Your task to perform on an android device: Open the calendar and show me this week's events Image 0: 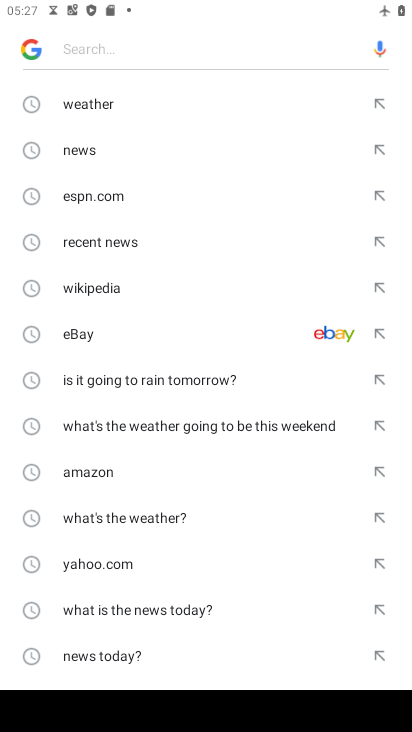
Step 0: press home button
Your task to perform on an android device: Open the calendar and show me this week's events Image 1: 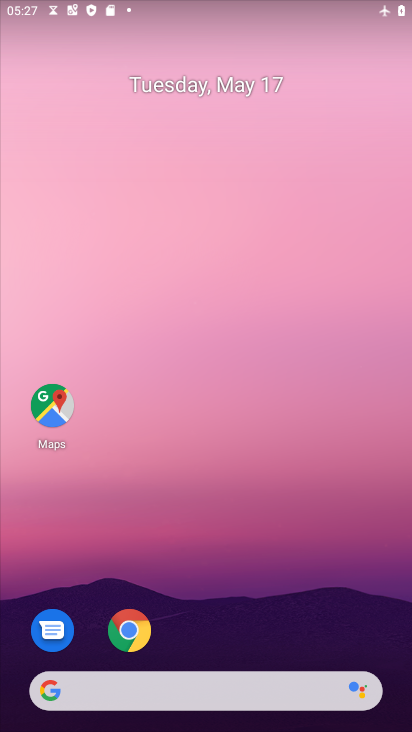
Step 1: drag from (271, 597) to (276, 34)
Your task to perform on an android device: Open the calendar and show me this week's events Image 2: 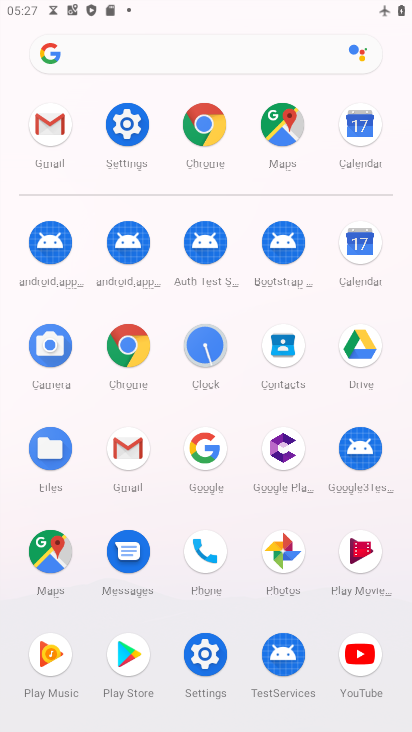
Step 2: click (364, 231)
Your task to perform on an android device: Open the calendar and show me this week's events Image 3: 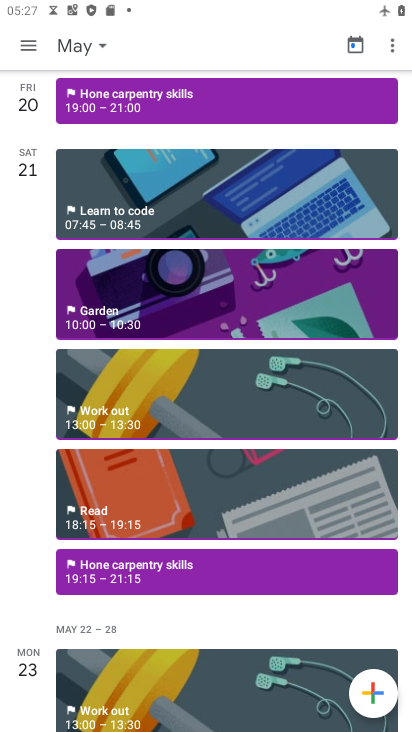
Step 3: click (114, 43)
Your task to perform on an android device: Open the calendar and show me this week's events Image 4: 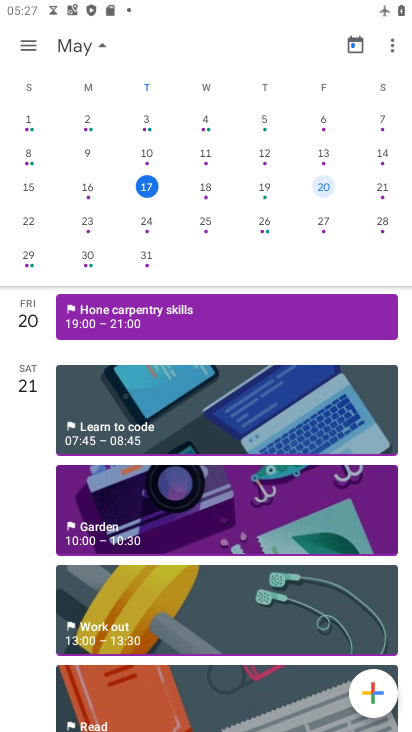
Step 4: click (326, 176)
Your task to perform on an android device: Open the calendar and show me this week's events Image 5: 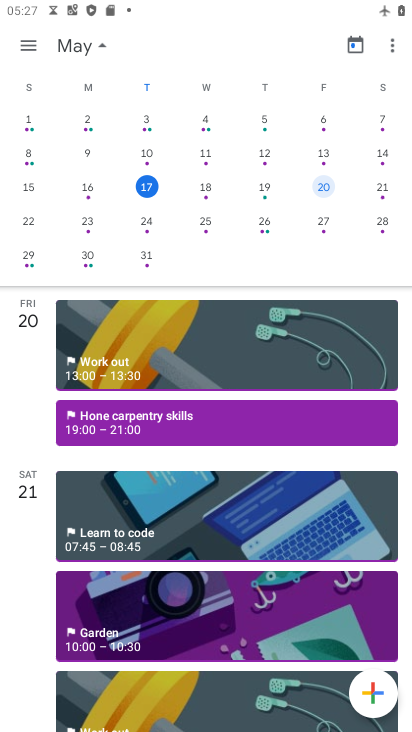
Step 5: click (320, 181)
Your task to perform on an android device: Open the calendar and show me this week's events Image 6: 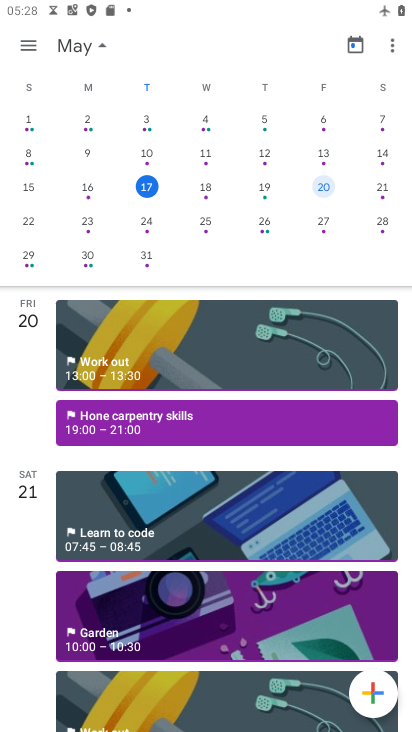
Step 6: click (86, 44)
Your task to perform on an android device: Open the calendar and show me this week's events Image 7: 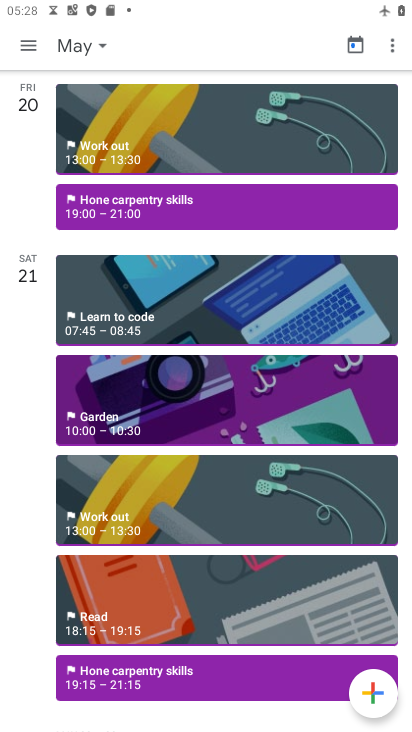
Step 7: task complete